Your task to perform on an android device: Search for pizza restaurants on Maps Image 0: 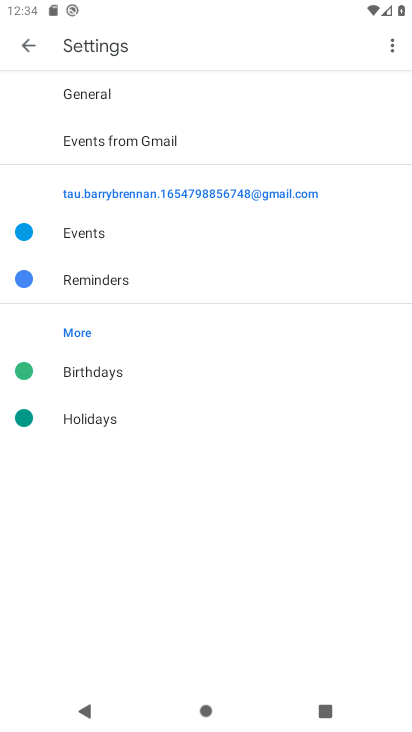
Step 0: press home button
Your task to perform on an android device: Search for pizza restaurants on Maps Image 1: 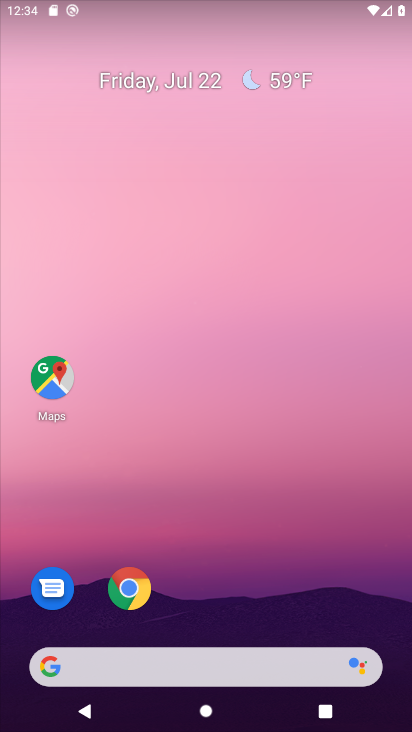
Step 1: click (61, 382)
Your task to perform on an android device: Search for pizza restaurants on Maps Image 2: 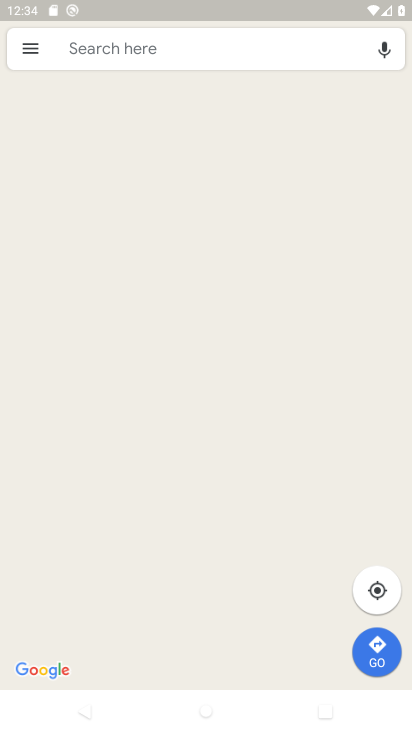
Step 2: click (126, 47)
Your task to perform on an android device: Search for pizza restaurants on Maps Image 3: 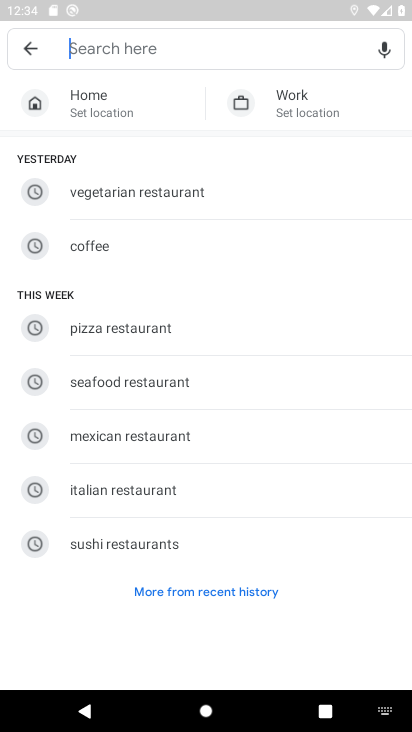
Step 3: click (111, 48)
Your task to perform on an android device: Search for pizza restaurants on Maps Image 4: 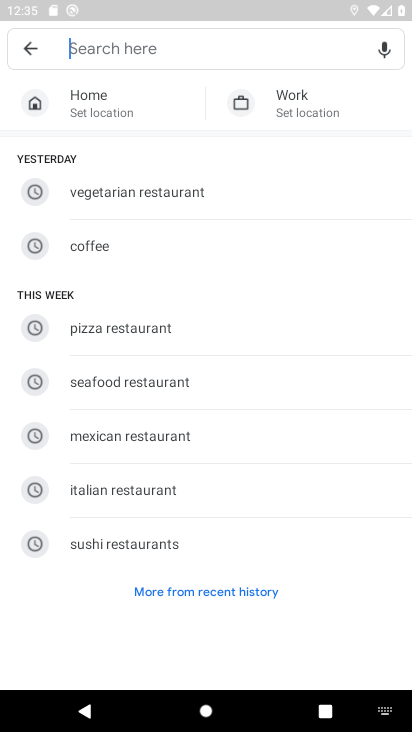
Step 4: click (91, 328)
Your task to perform on an android device: Search for pizza restaurants on Maps Image 5: 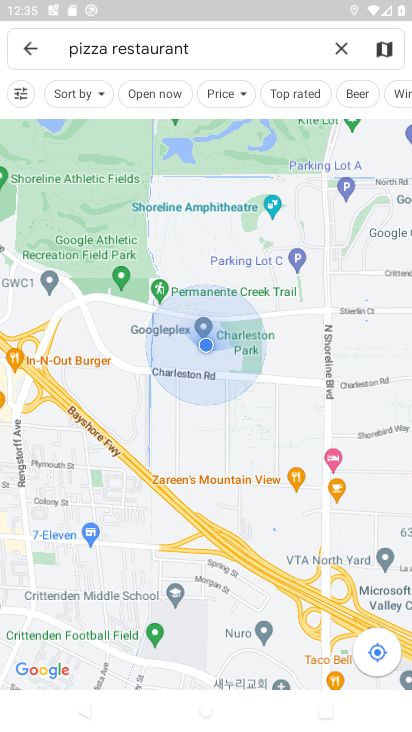
Step 5: task complete